Your task to perform on an android device: show emergency info Image 0: 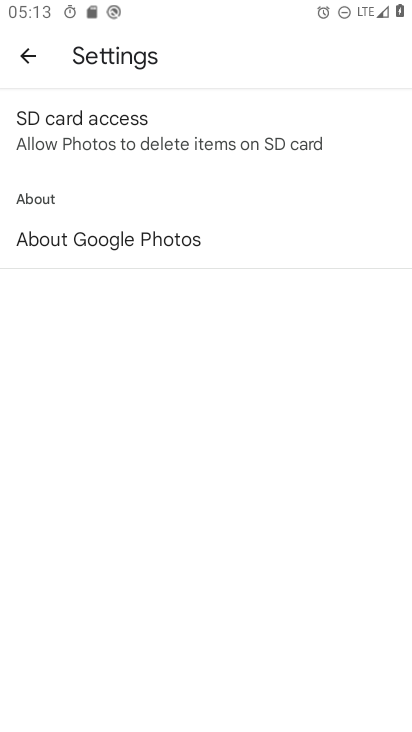
Step 0: press home button
Your task to perform on an android device: show emergency info Image 1: 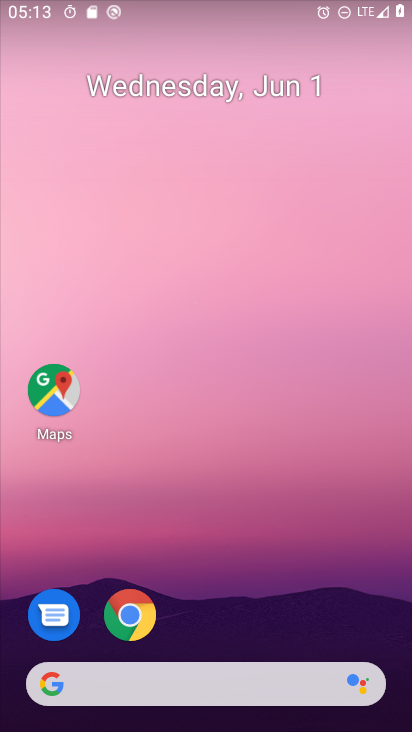
Step 1: drag from (331, 663) to (312, 9)
Your task to perform on an android device: show emergency info Image 2: 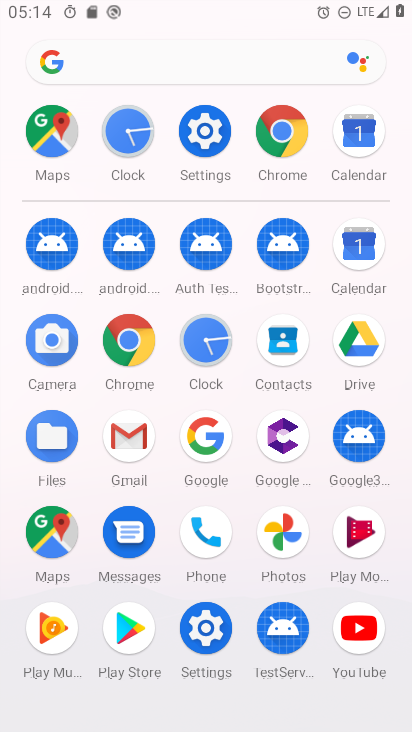
Step 2: click (210, 141)
Your task to perform on an android device: show emergency info Image 3: 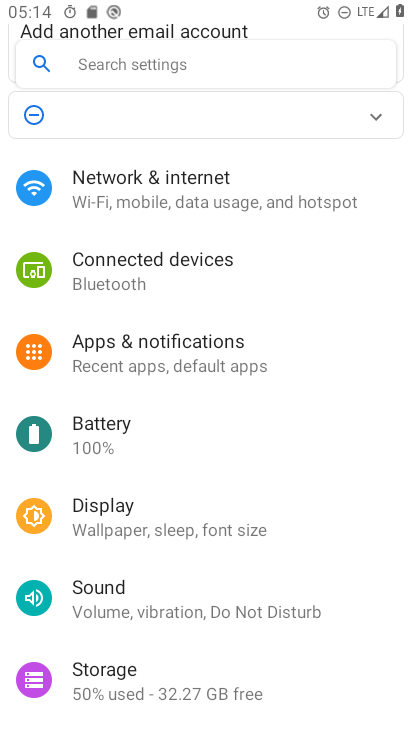
Step 3: drag from (187, 628) to (239, 20)
Your task to perform on an android device: show emergency info Image 4: 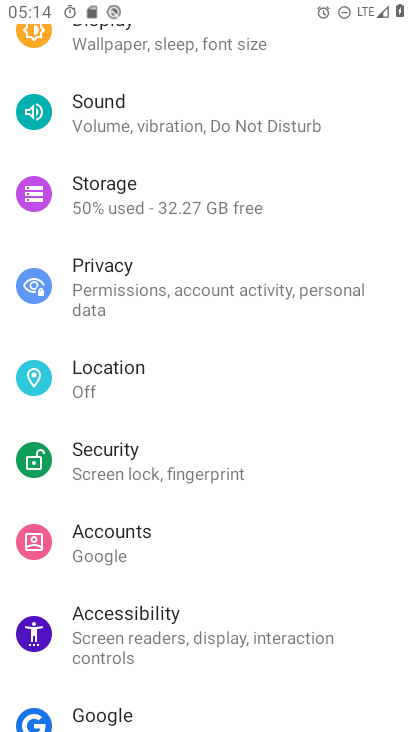
Step 4: drag from (188, 699) to (268, 15)
Your task to perform on an android device: show emergency info Image 5: 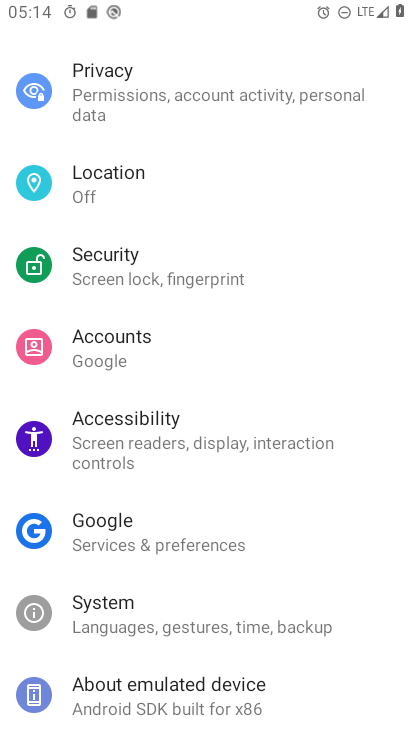
Step 5: click (210, 675)
Your task to perform on an android device: show emergency info Image 6: 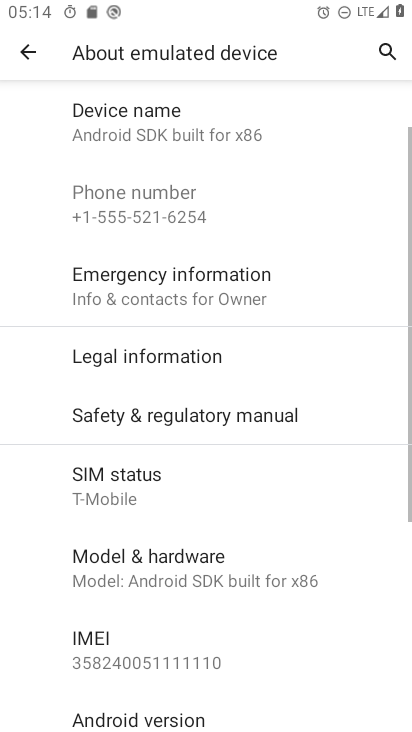
Step 6: click (216, 283)
Your task to perform on an android device: show emergency info Image 7: 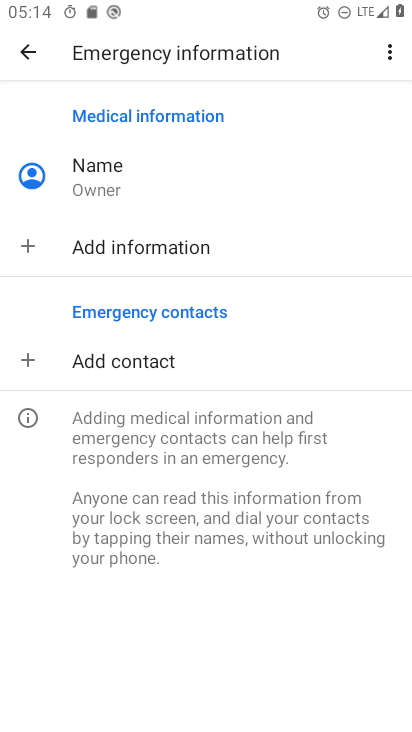
Step 7: task complete